Your task to perform on an android device: turn off wifi Image 0: 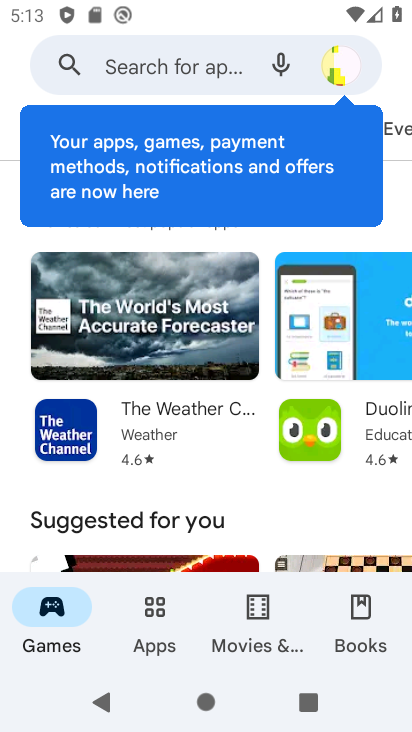
Step 0: press back button
Your task to perform on an android device: turn off wifi Image 1: 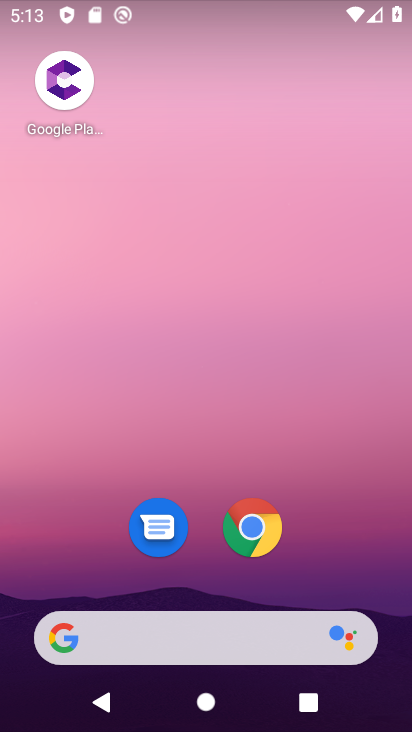
Step 1: drag from (324, 552) to (191, 21)
Your task to perform on an android device: turn off wifi Image 2: 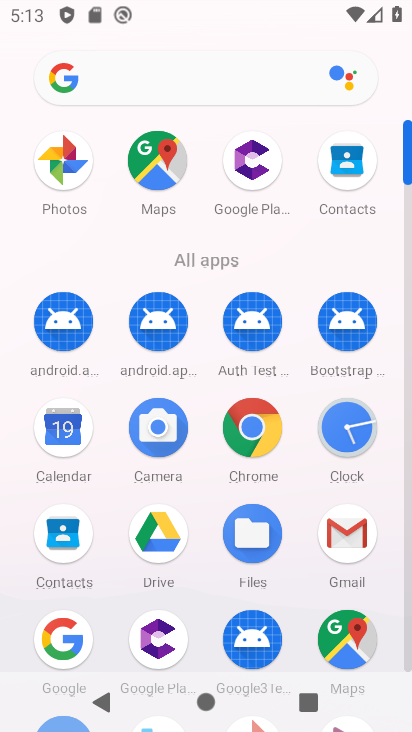
Step 2: drag from (100, 542) to (109, 287)
Your task to perform on an android device: turn off wifi Image 3: 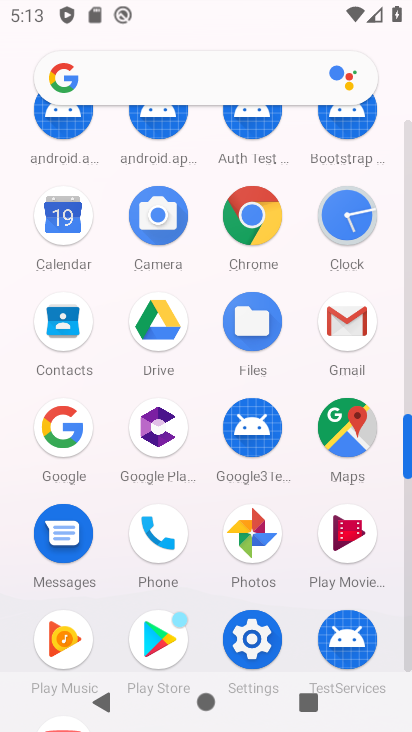
Step 3: click (251, 636)
Your task to perform on an android device: turn off wifi Image 4: 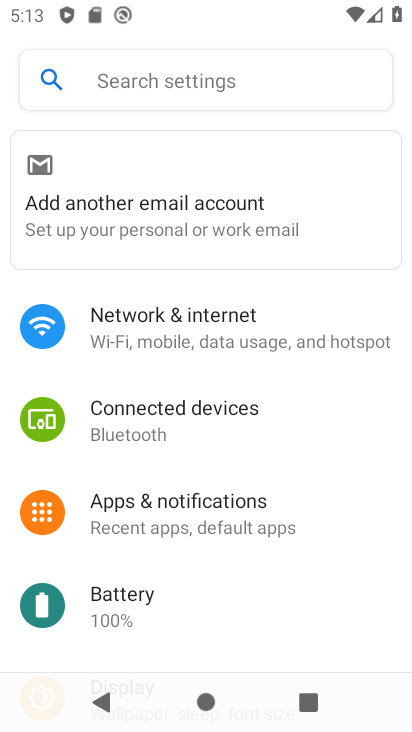
Step 4: click (186, 327)
Your task to perform on an android device: turn off wifi Image 5: 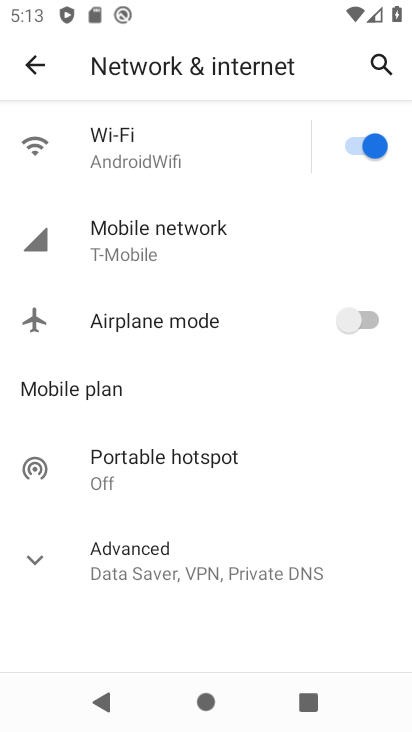
Step 5: click (375, 157)
Your task to perform on an android device: turn off wifi Image 6: 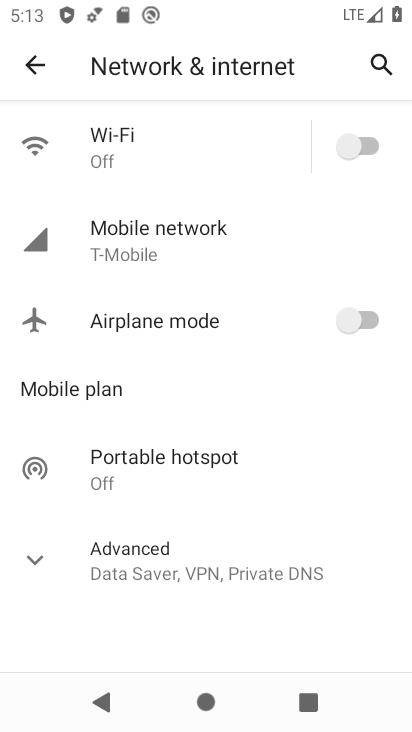
Step 6: task complete